Your task to perform on an android device: Go to Reddit.com Image 0: 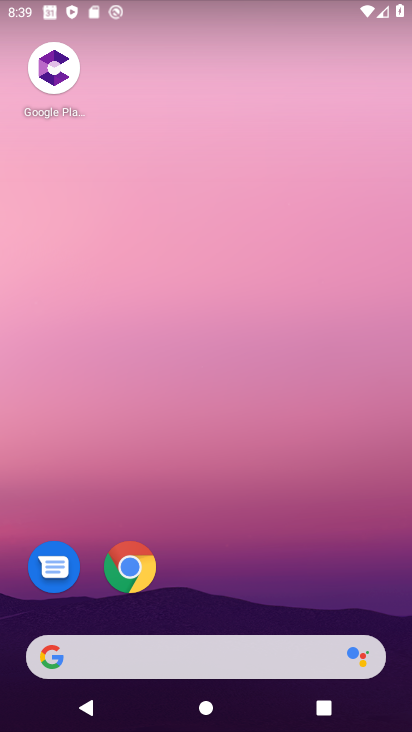
Step 0: drag from (321, 542) to (344, 0)
Your task to perform on an android device: Go to Reddit.com Image 1: 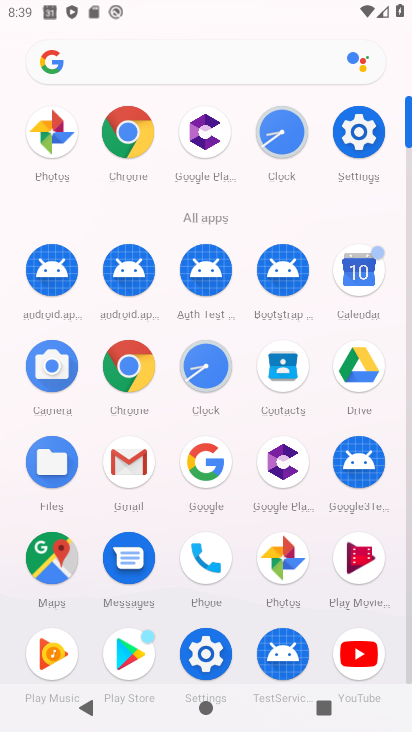
Step 1: click (127, 149)
Your task to perform on an android device: Go to Reddit.com Image 2: 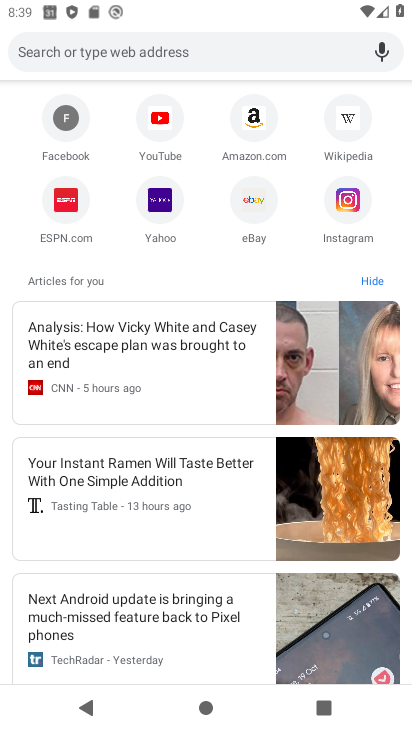
Step 2: click (168, 42)
Your task to perform on an android device: Go to Reddit.com Image 3: 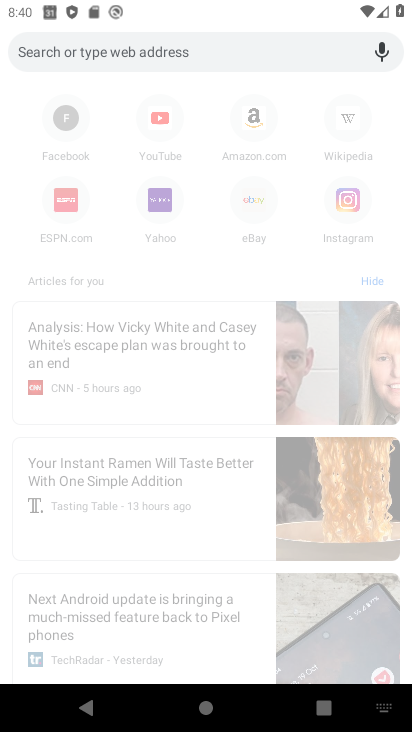
Step 3: type "reddit.com"
Your task to perform on an android device: Go to Reddit.com Image 4: 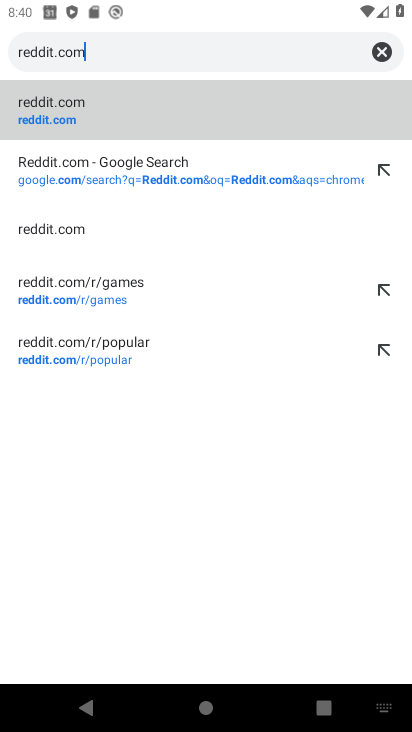
Step 4: click (31, 109)
Your task to perform on an android device: Go to Reddit.com Image 5: 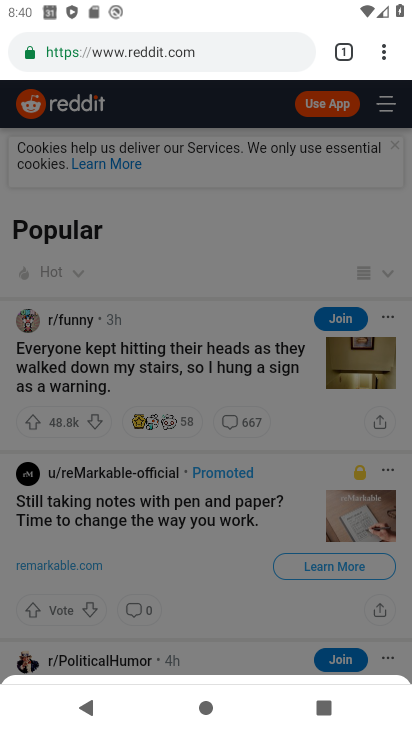
Step 5: task complete